Your task to perform on an android device: Open Wikipedia Image 0: 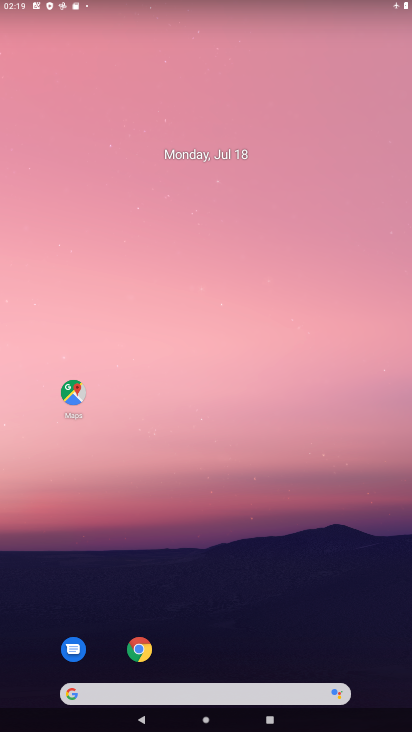
Step 0: click (161, 699)
Your task to perform on an android device: Open Wikipedia Image 1: 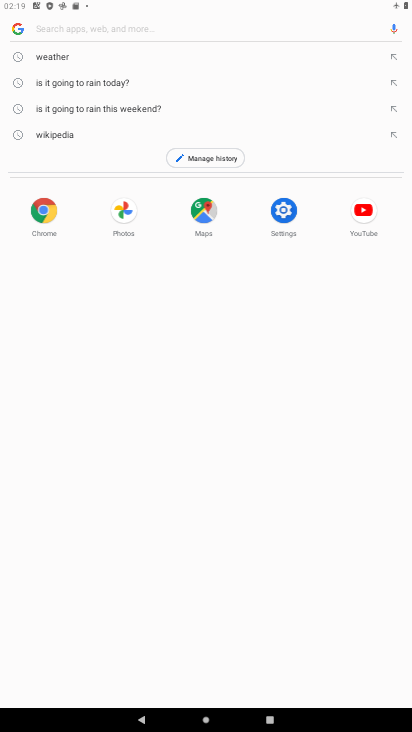
Step 1: click (67, 132)
Your task to perform on an android device: Open Wikipedia Image 2: 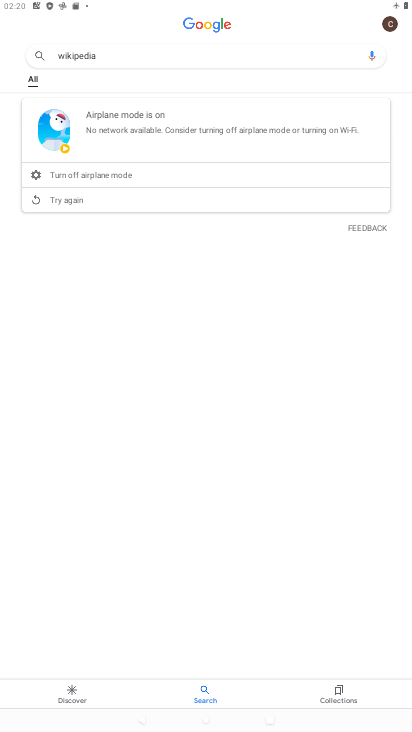
Step 2: task complete